Your task to perform on an android device: add a contact Image 0: 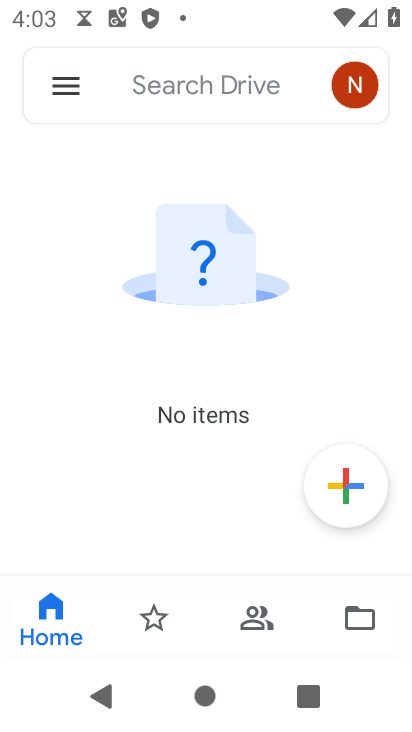
Step 0: press back button
Your task to perform on an android device: add a contact Image 1: 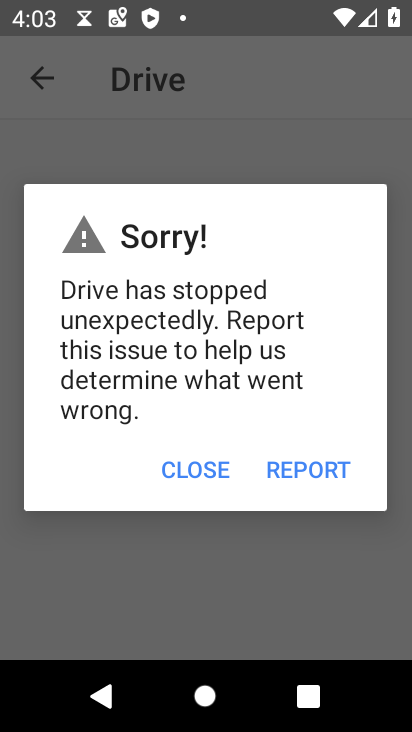
Step 1: click (206, 460)
Your task to perform on an android device: add a contact Image 2: 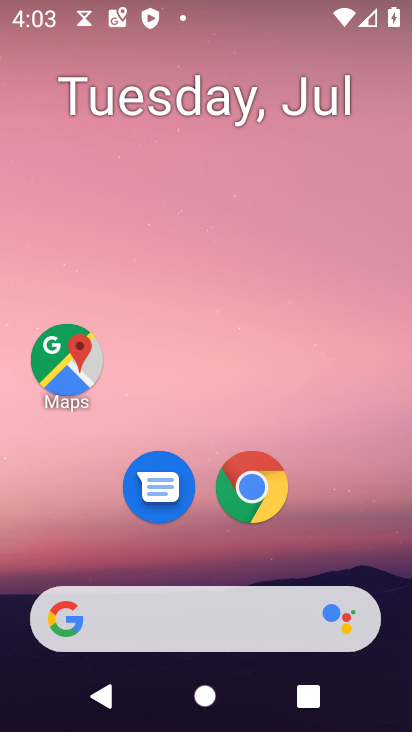
Step 2: drag from (172, 560) to (268, 4)
Your task to perform on an android device: add a contact Image 3: 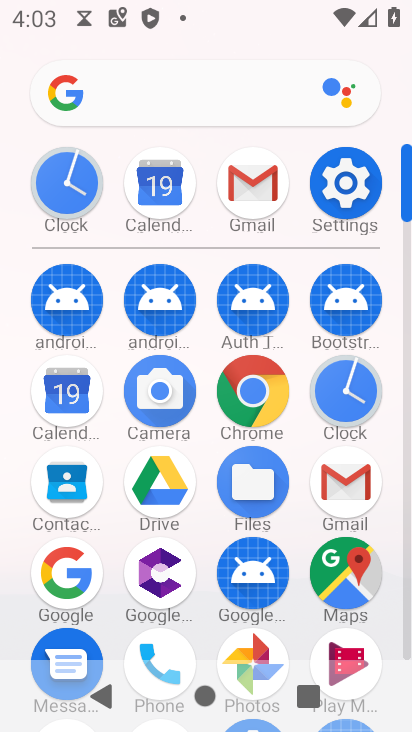
Step 3: click (69, 480)
Your task to perform on an android device: add a contact Image 4: 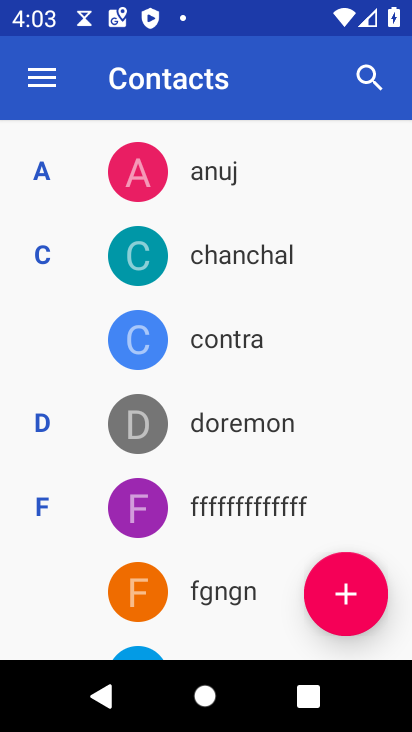
Step 4: click (351, 598)
Your task to perform on an android device: add a contact Image 5: 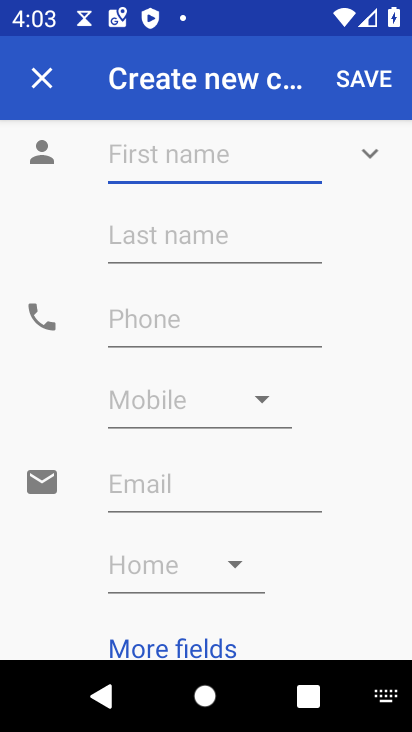
Step 5: click (155, 158)
Your task to perform on an android device: add a contact Image 6: 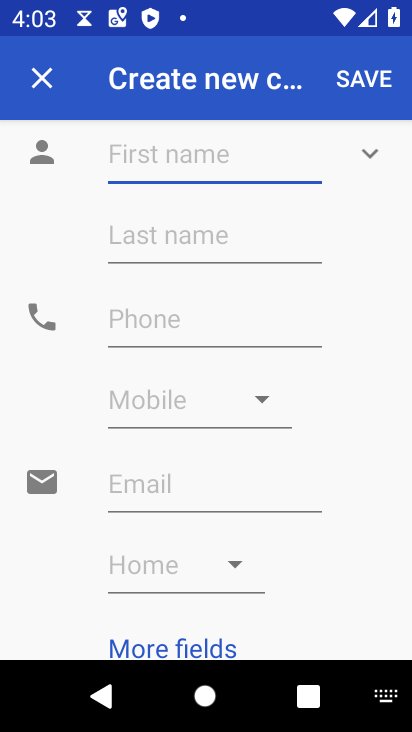
Step 6: type "ghgh"
Your task to perform on an android device: add a contact Image 7: 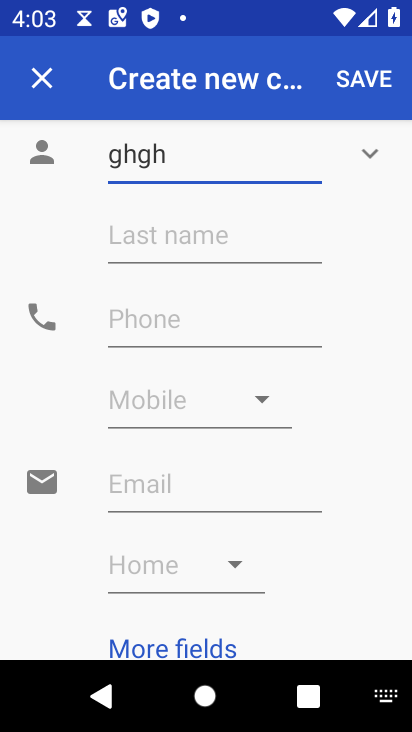
Step 7: click (114, 321)
Your task to perform on an android device: add a contact Image 8: 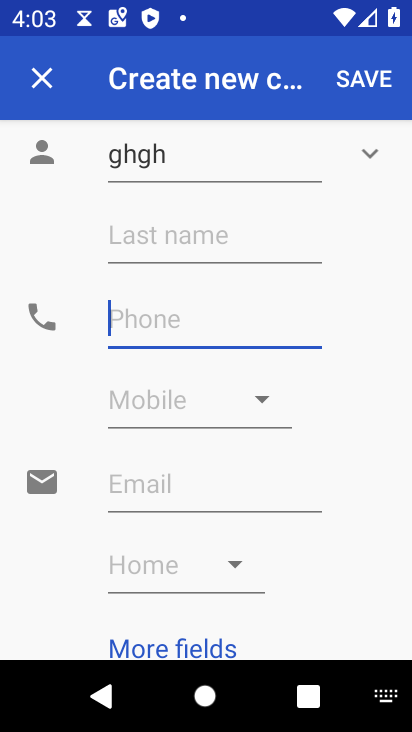
Step 8: type "5787"
Your task to perform on an android device: add a contact Image 9: 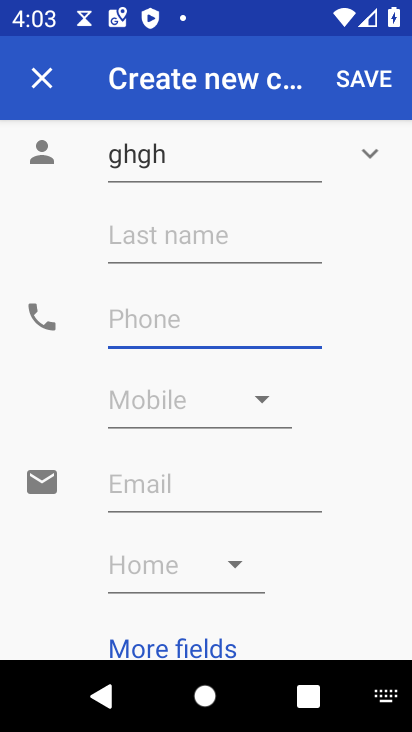
Step 9: click (148, 398)
Your task to perform on an android device: add a contact Image 10: 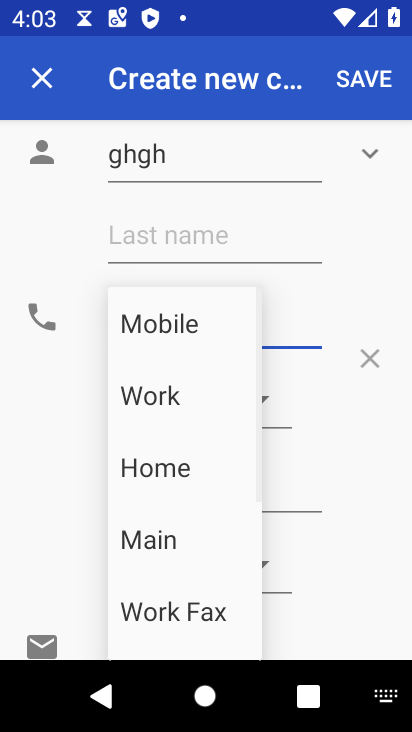
Step 10: click (185, 330)
Your task to perform on an android device: add a contact Image 11: 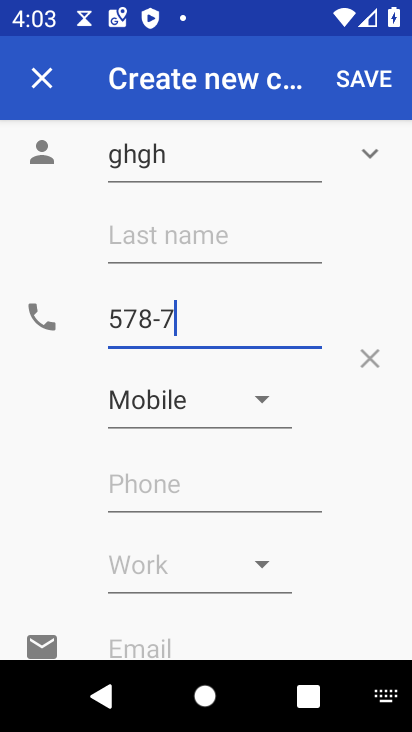
Step 11: click (355, 78)
Your task to perform on an android device: add a contact Image 12: 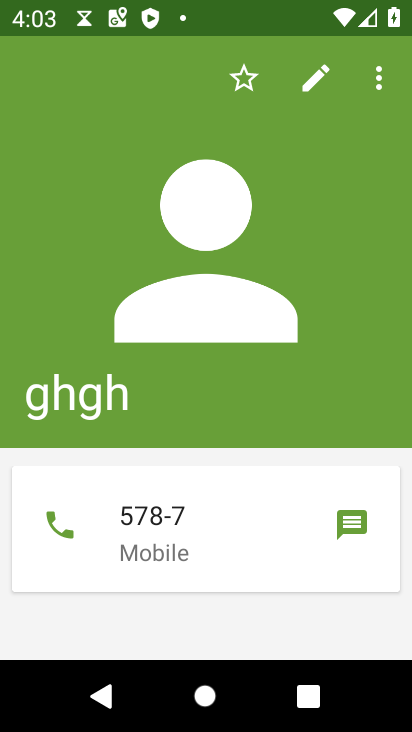
Step 12: task complete